Your task to perform on an android device: Open the stopwatch Image 0: 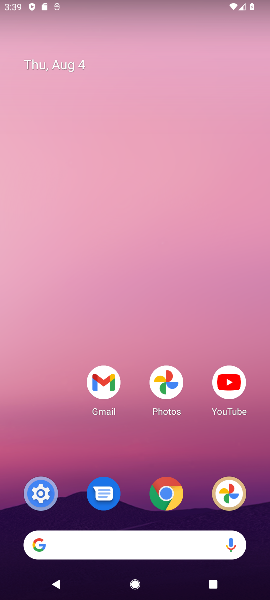
Step 0: drag from (155, 525) to (211, 352)
Your task to perform on an android device: Open the stopwatch Image 1: 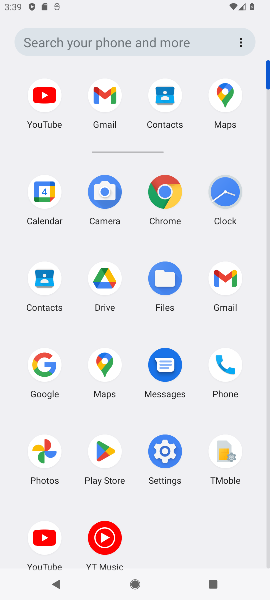
Step 1: click (220, 197)
Your task to perform on an android device: Open the stopwatch Image 2: 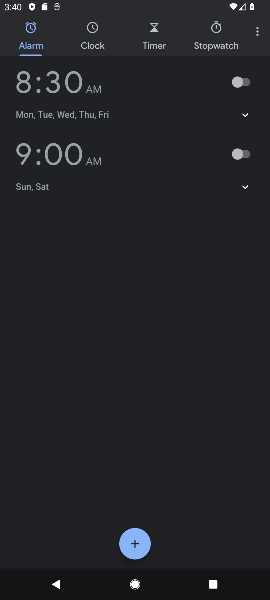
Step 2: click (211, 31)
Your task to perform on an android device: Open the stopwatch Image 3: 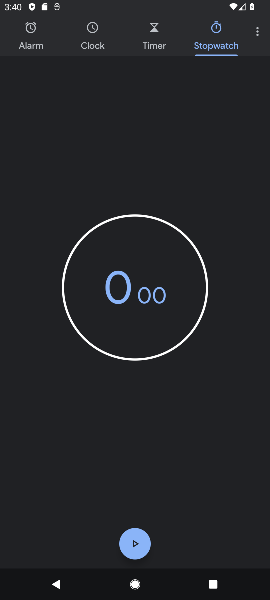
Step 3: task complete